Your task to perform on an android device: Show me productivity apps on the Play Store Image 0: 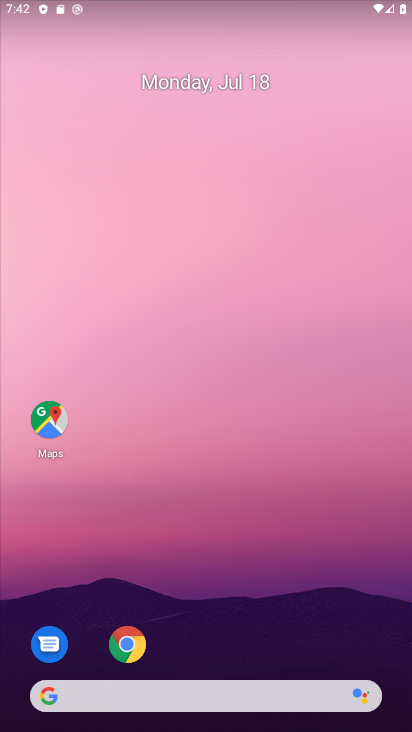
Step 0: drag from (278, 381) to (300, 148)
Your task to perform on an android device: Show me productivity apps on the Play Store Image 1: 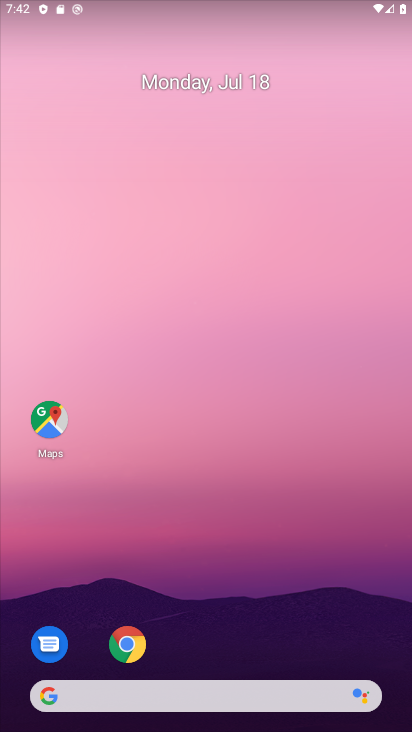
Step 1: drag from (316, 222) to (327, 47)
Your task to perform on an android device: Show me productivity apps on the Play Store Image 2: 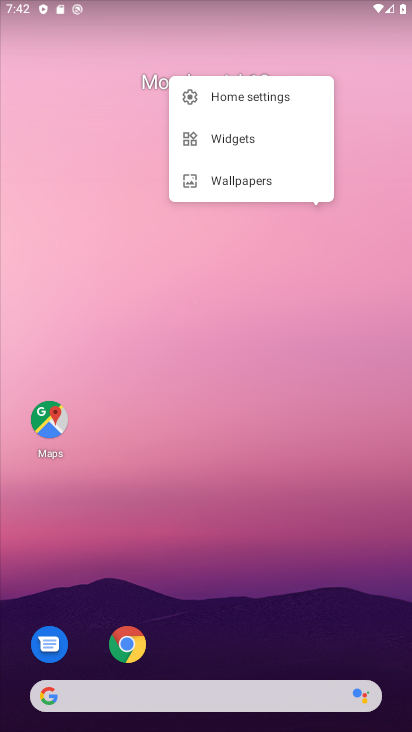
Step 2: drag from (250, 259) to (250, 127)
Your task to perform on an android device: Show me productivity apps on the Play Store Image 3: 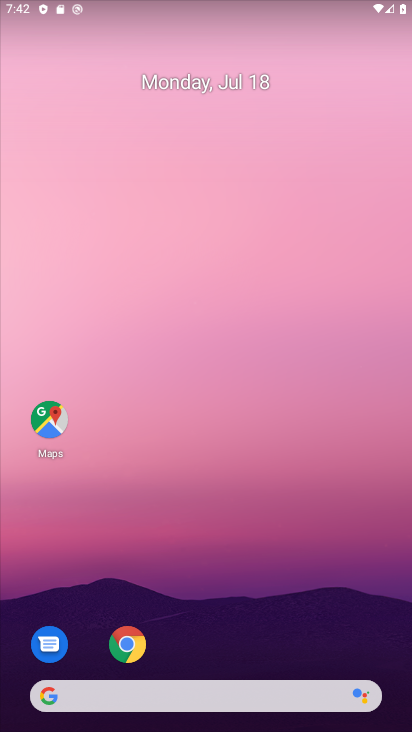
Step 3: drag from (221, 603) to (258, 28)
Your task to perform on an android device: Show me productivity apps on the Play Store Image 4: 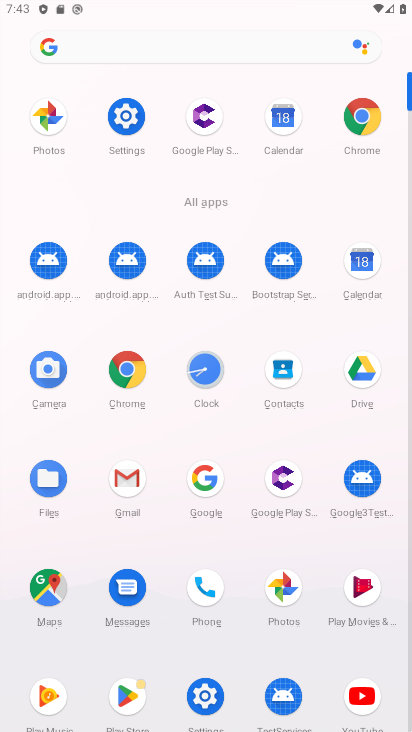
Step 4: click (125, 699)
Your task to perform on an android device: Show me productivity apps on the Play Store Image 5: 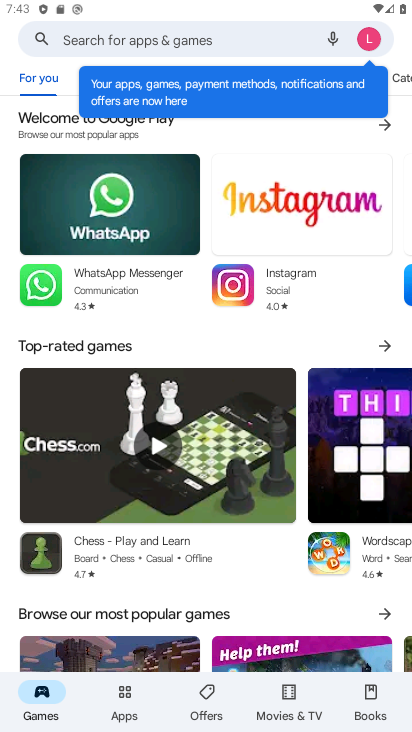
Step 5: click (124, 698)
Your task to perform on an android device: Show me productivity apps on the Play Store Image 6: 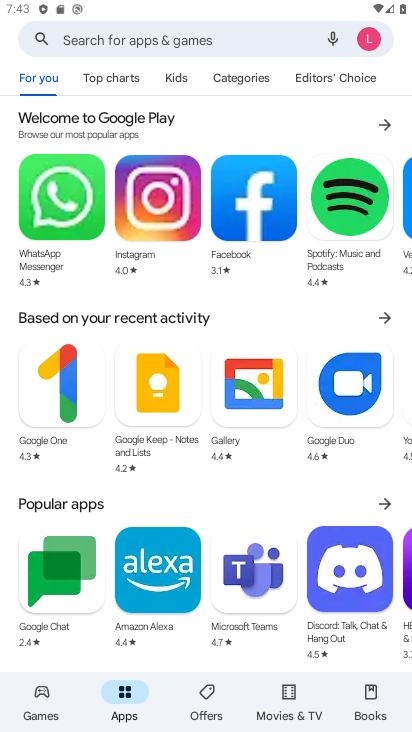
Step 6: click (252, 84)
Your task to perform on an android device: Show me productivity apps on the Play Store Image 7: 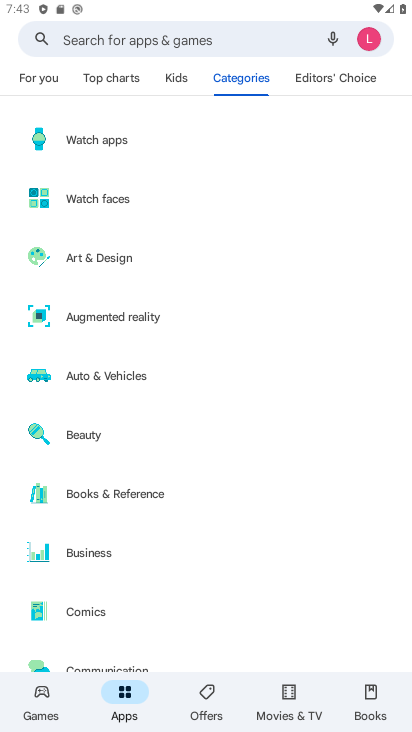
Step 7: drag from (120, 651) to (171, 106)
Your task to perform on an android device: Show me productivity apps on the Play Store Image 8: 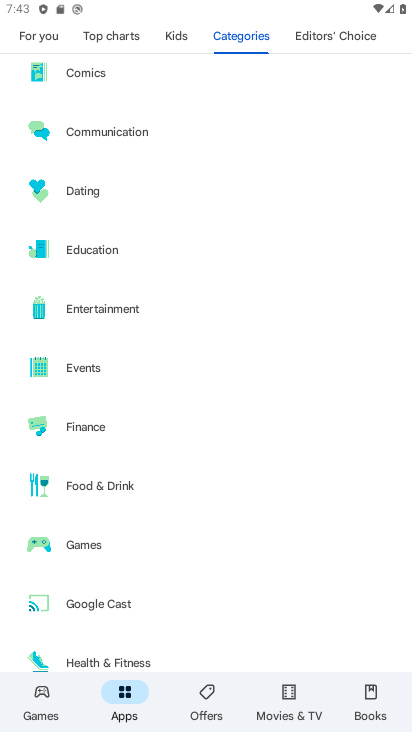
Step 8: drag from (166, 609) to (149, 134)
Your task to perform on an android device: Show me productivity apps on the Play Store Image 9: 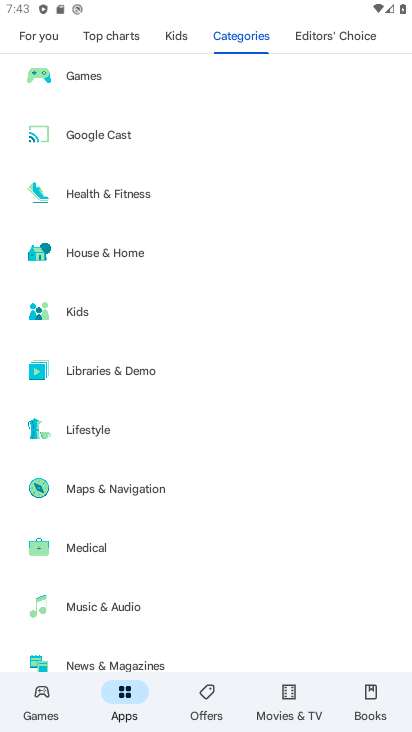
Step 9: drag from (150, 626) to (174, 320)
Your task to perform on an android device: Show me productivity apps on the Play Store Image 10: 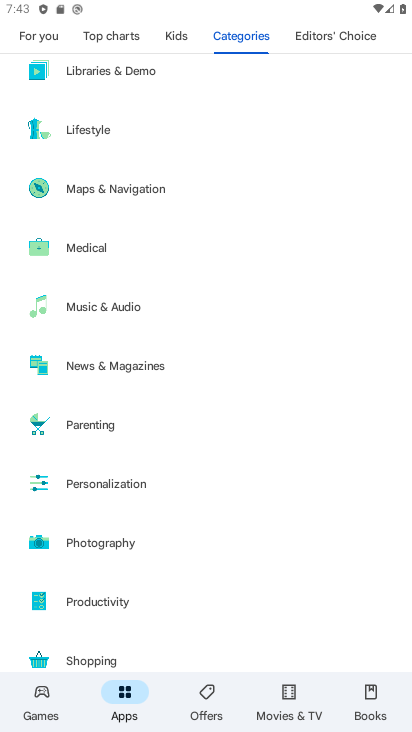
Step 10: click (95, 604)
Your task to perform on an android device: Show me productivity apps on the Play Store Image 11: 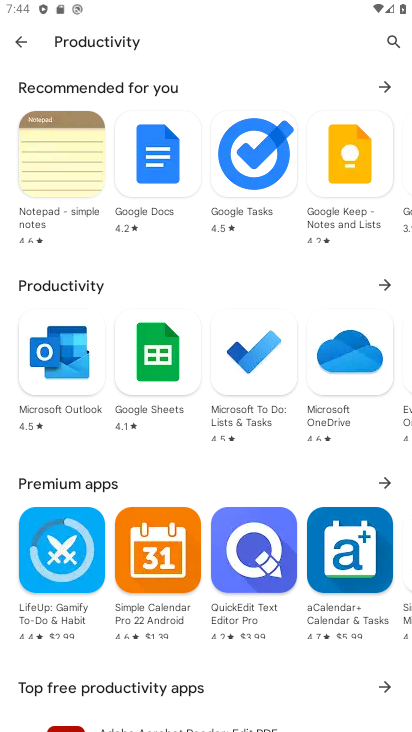
Step 11: click (387, 286)
Your task to perform on an android device: Show me productivity apps on the Play Store Image 12: 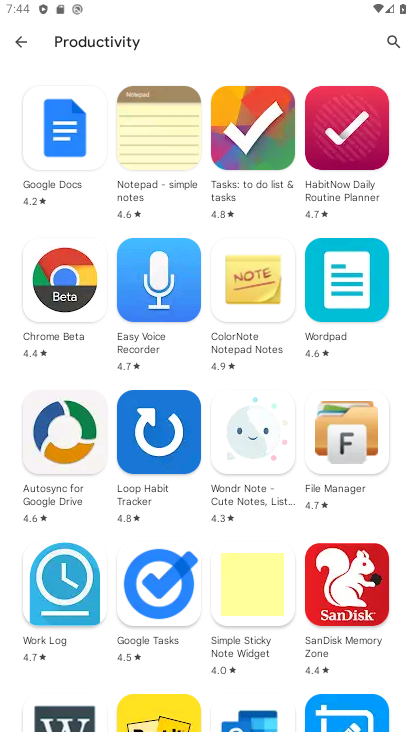
Step 12: task complete